Your task to perform on an android device: open a new tab in the chrome app Image 0: 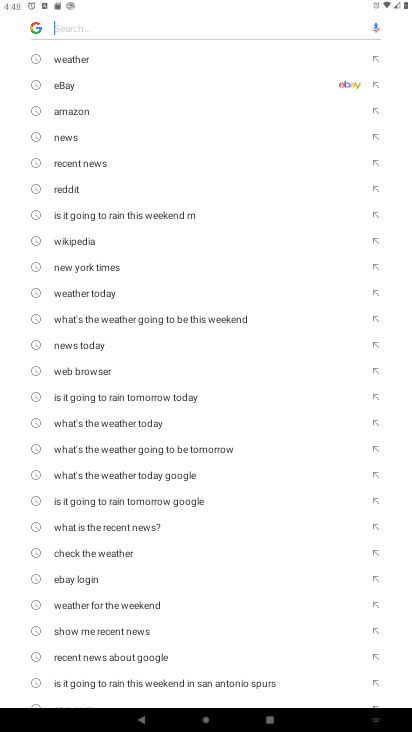
Step 0: press home button
Your task to perform on an android device: open a new tab in the chrome app Image 1: 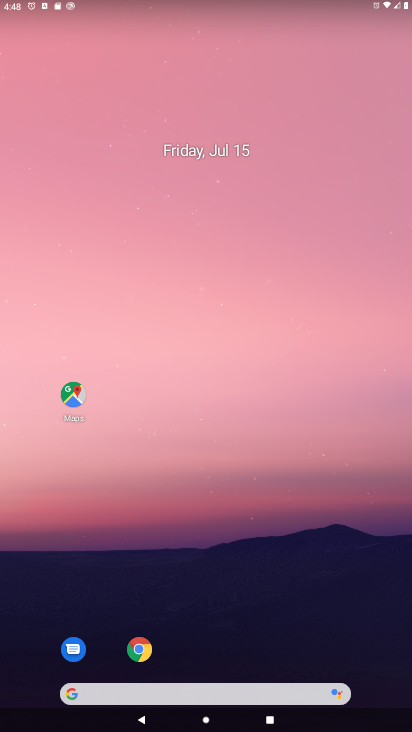
Step 1: click (140, 649)
Your task to perform on an android device: open a new tab in the chrome app Image 2: 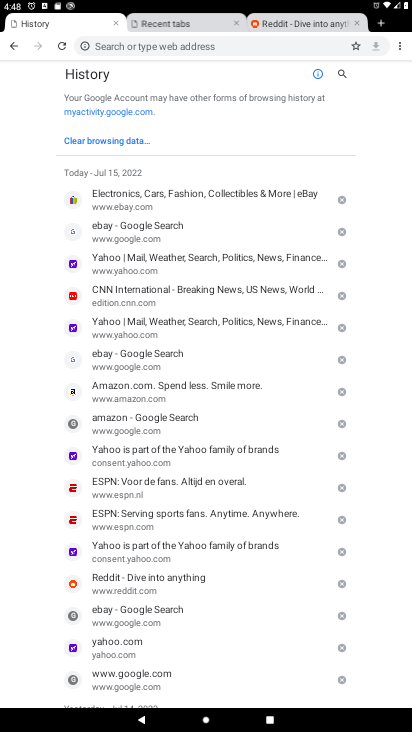
Step 2: click (400, 49)
Your task to perform on an android device: open a new tab in the chrome app Image 3: 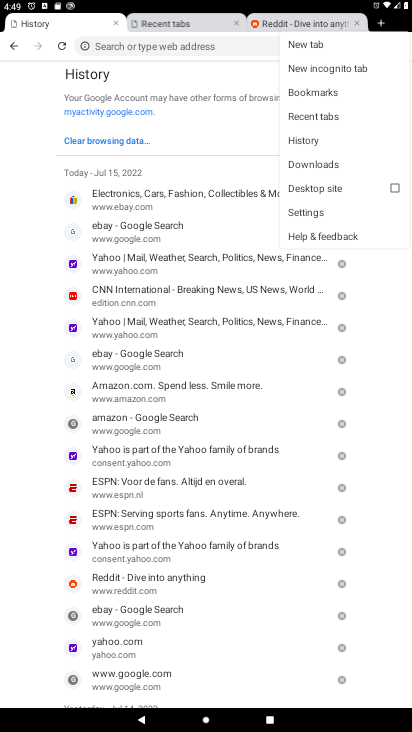
Step 3: click (306, 45)
Your task to perform on an android device: open a new tab in the chrome app Image 4: 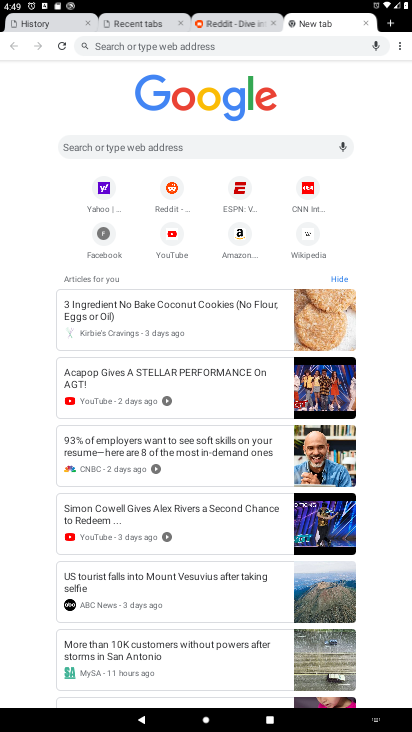
Step 4: task complete